Your task to perform on an android device: add a label to a message in the gmail app Image 0: 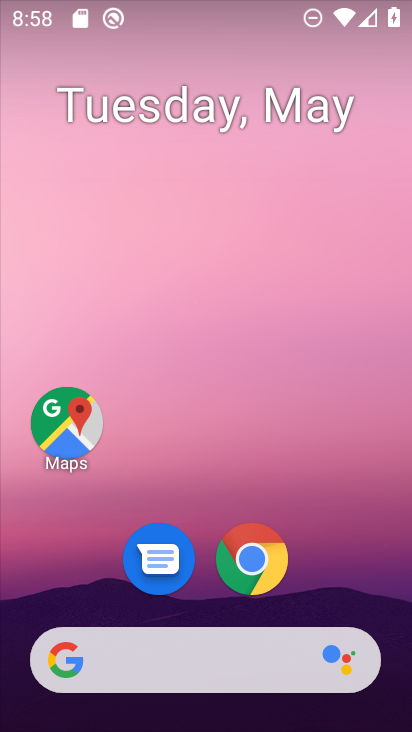
Step 0: drag from (204, 618) to (333, 36)
Your task to perform on an android device: add a label to a message in the gmail app Image 1: 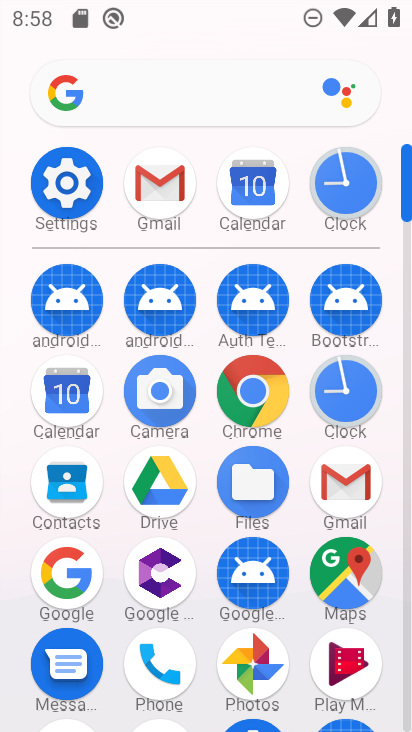
Step 1: click (149, 182)
Your task to perform on an android device: add a label to a message in the gmail app Image 2: 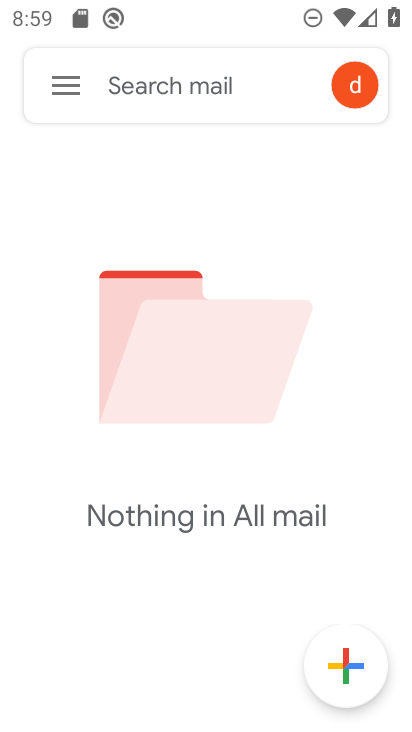
Step 2: click (55, 73)
Your task to perform on an android device: add a label to a message in the gmail app Image 3: 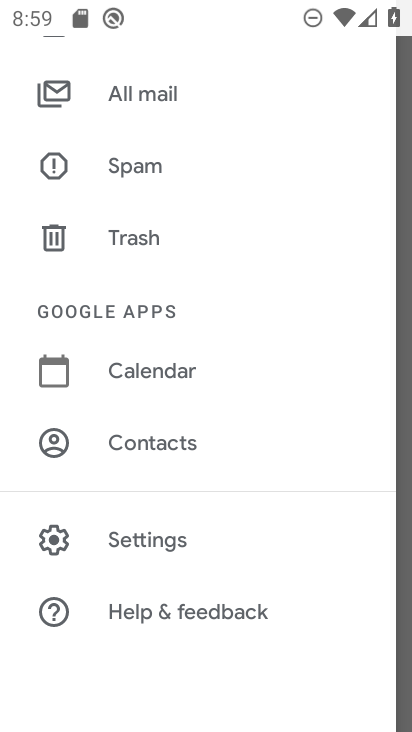
Step 3: click (186, 96)
Your task to perform on an android device: add a label to a message in the gmail app Image 4: 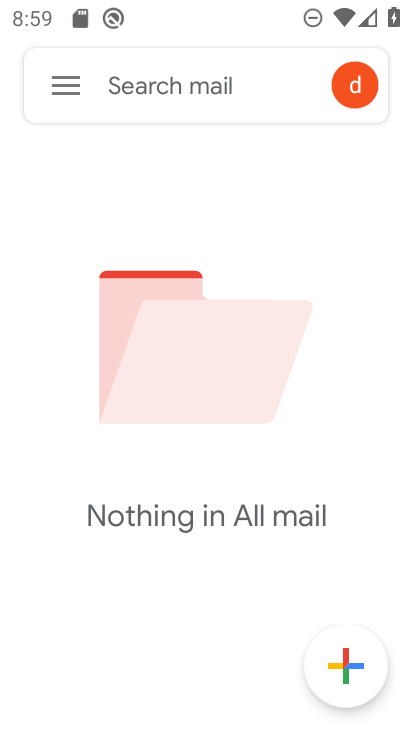
Step 4: task complete